Your task to perform on an android device: When is my next meeting? Image 0: 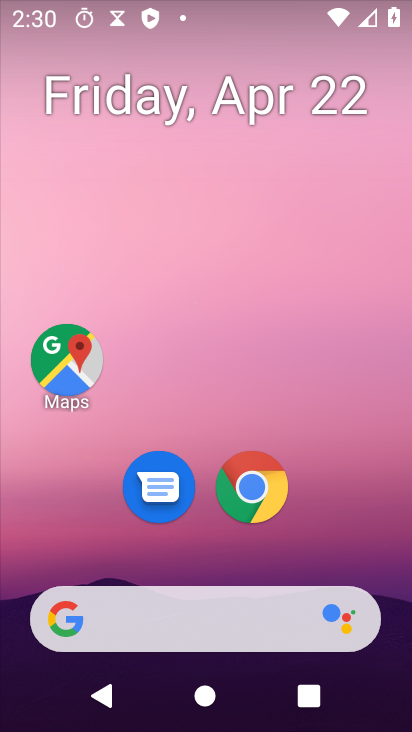
Step 0: press home button
Your task to perform on an android device: When is my next meeting? Image 1: 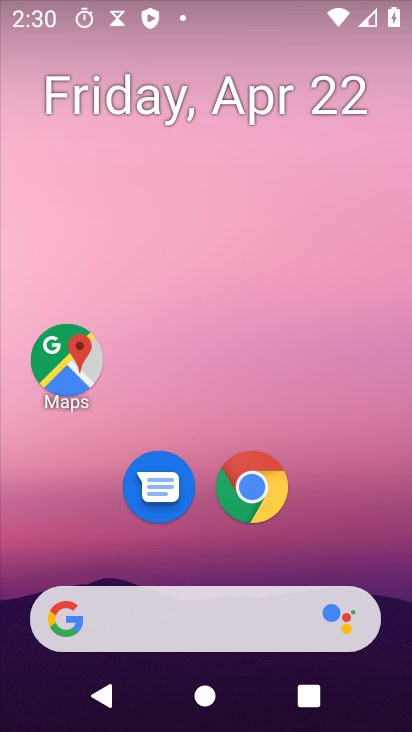
Step 1: drag from (165, 632) to (295, 195)
Your task to perform on an android device: When is my next meeting? Image 2: 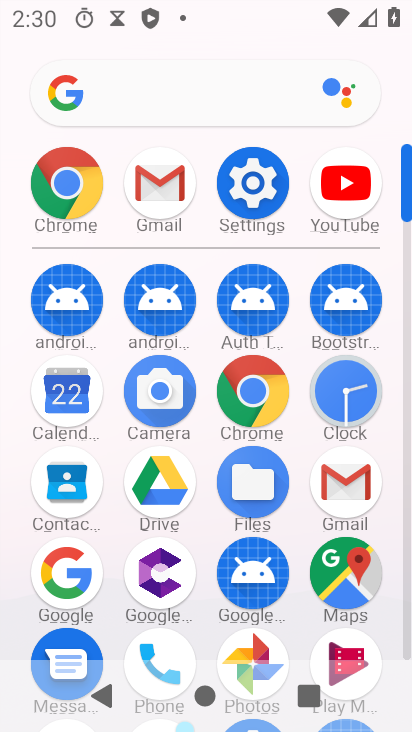
Step 2: click (60, 410)
Your task to perform on an android device: When is my next meeting? Image 3: 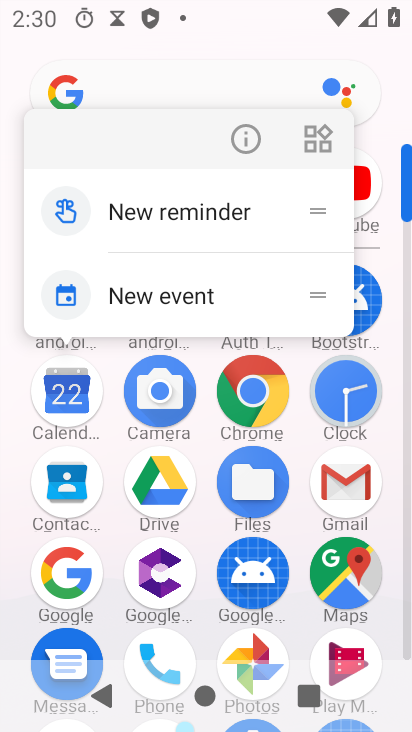
Step 3: click (80, 387)
Your task to perform on an android device: When is my next meeting? Image 4: 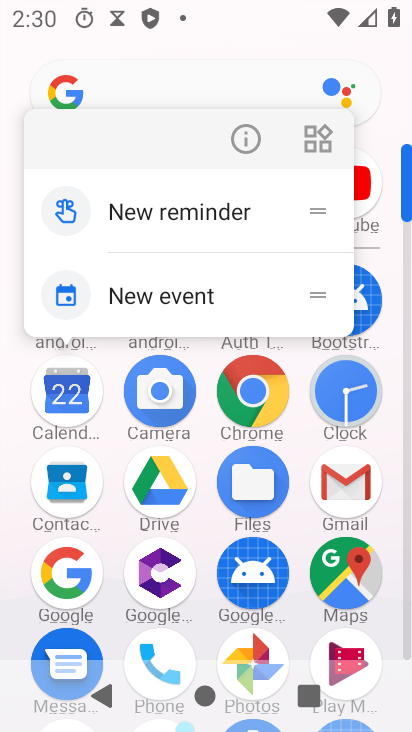
Step 4: click (75, 399)
Your task to perform on an android device: When is my next meeting? Image 5: 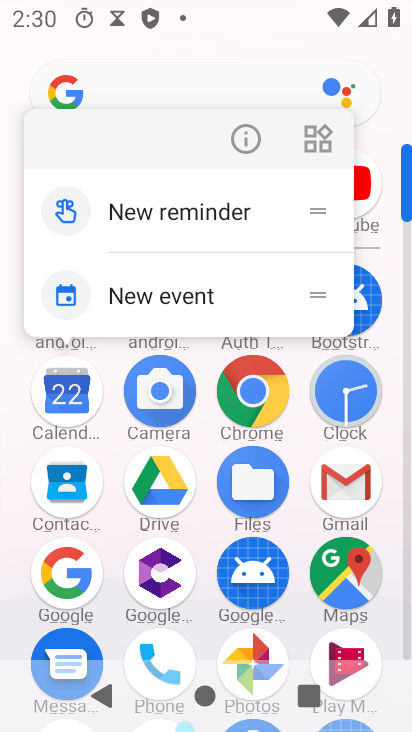
Step 5: click (67, 399)
Your task to perform on an android device: When is my next meeting? Image 6: 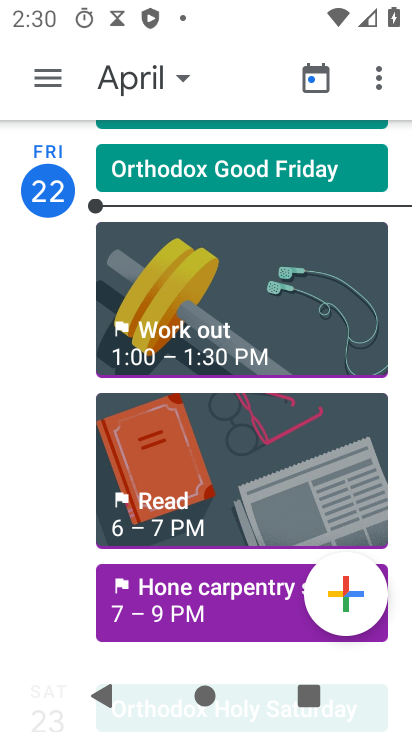
Step 6: click (110, 78)
Your task to perform on an android device: When is my next meeting? Image 7: 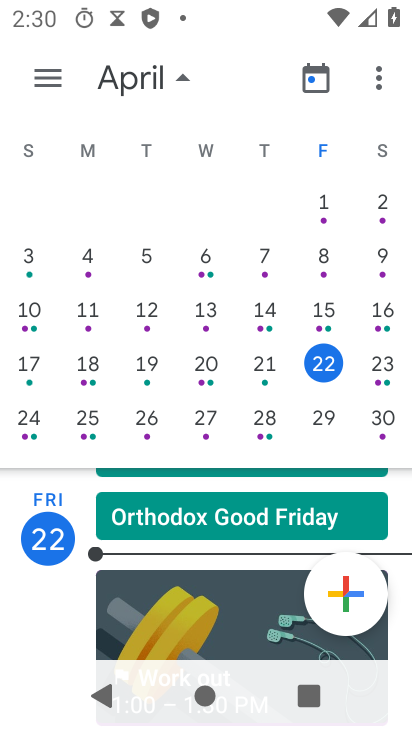
Step 7: click (44, 83)
Your task to perform on an android device: When is my next meeting? Image 8: 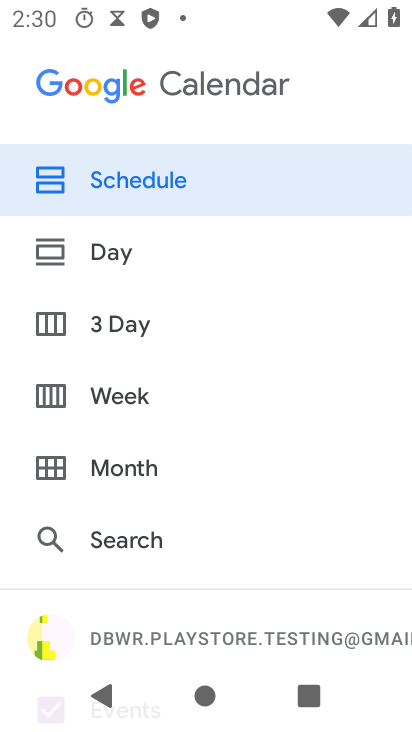
Step 8: click (106, 187)
Your task to perform on an android device: When is my next meeting? Image 9: 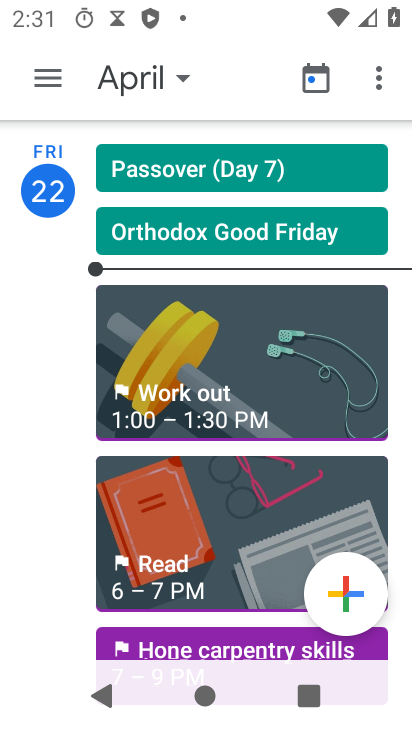
Step 9: drag from (224, 484) to (378, 238)
Your task to perform on an android device: When is my next meeting? Image 10: 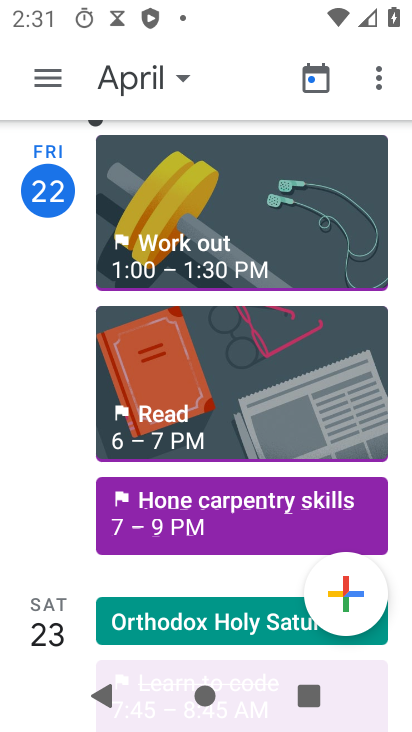
Step 10: click (177, 508)
Your task to perform on an android device: When is my next meeting? Image 11: 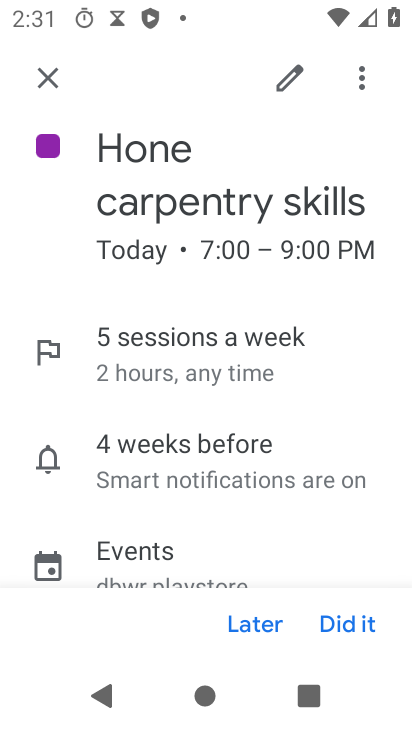
Step 11: task complete